Your task to perform on an android device: turn on translation in the chrome app Image 0: 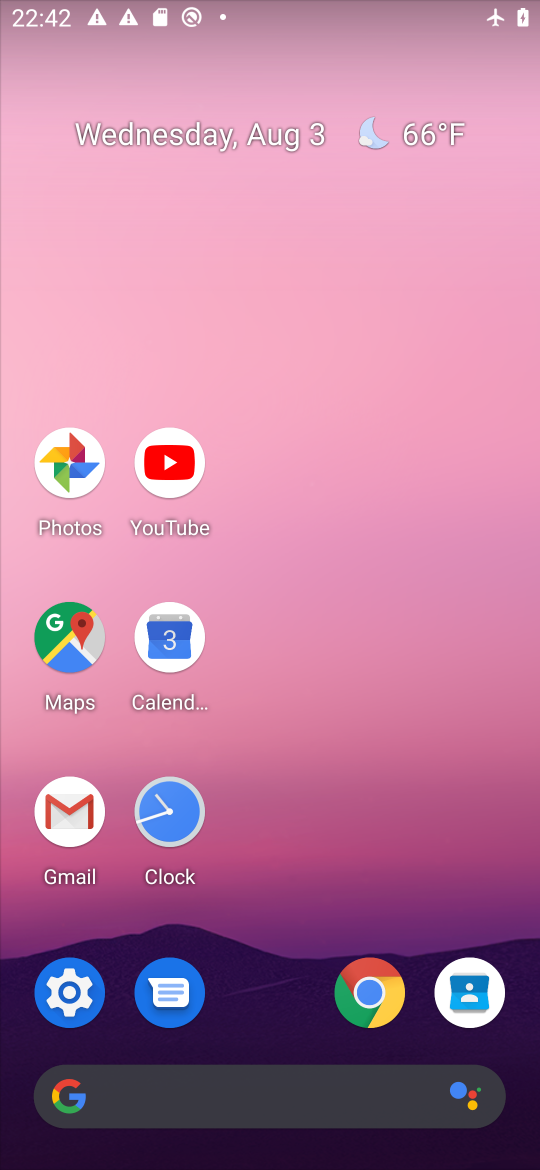
Step 0: click (372, 999)
Your task to perform on an android device: turn on translation in the chrome app Image 1: 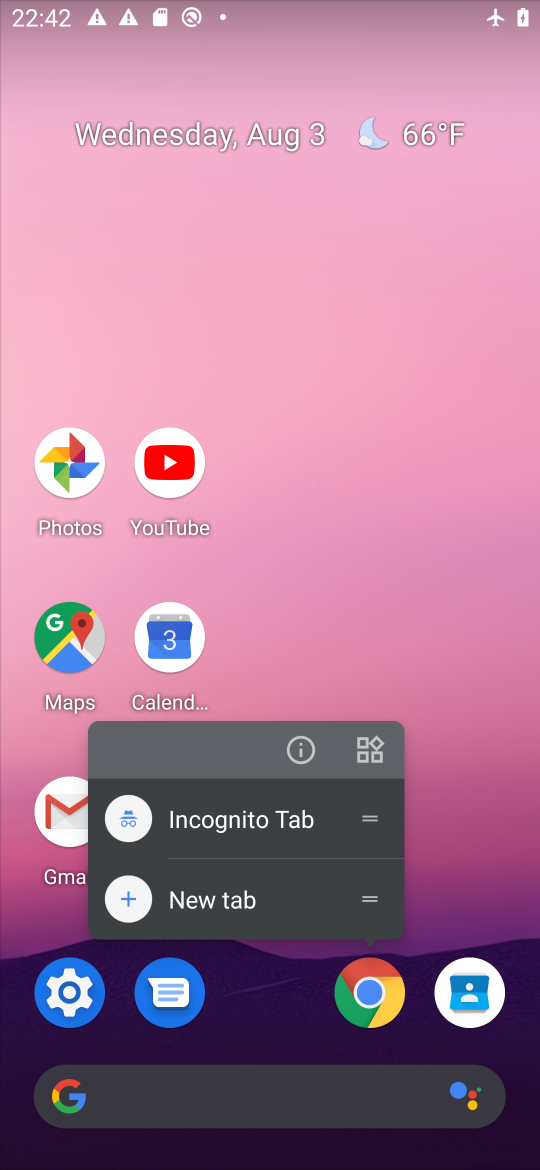
Step 1: click (372, 999)
Your task to perform on an android device: turn on translation in the chrome app Image 2: 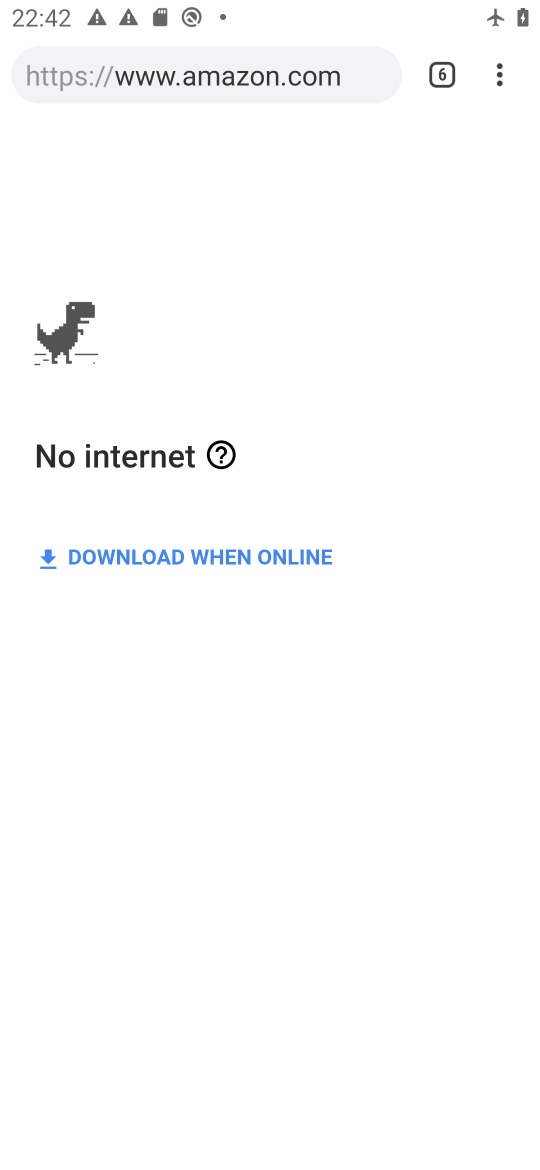
Step 2: click (494, 74)
Your task to perform on an android device: turn on translation in the chrome app Image 3: 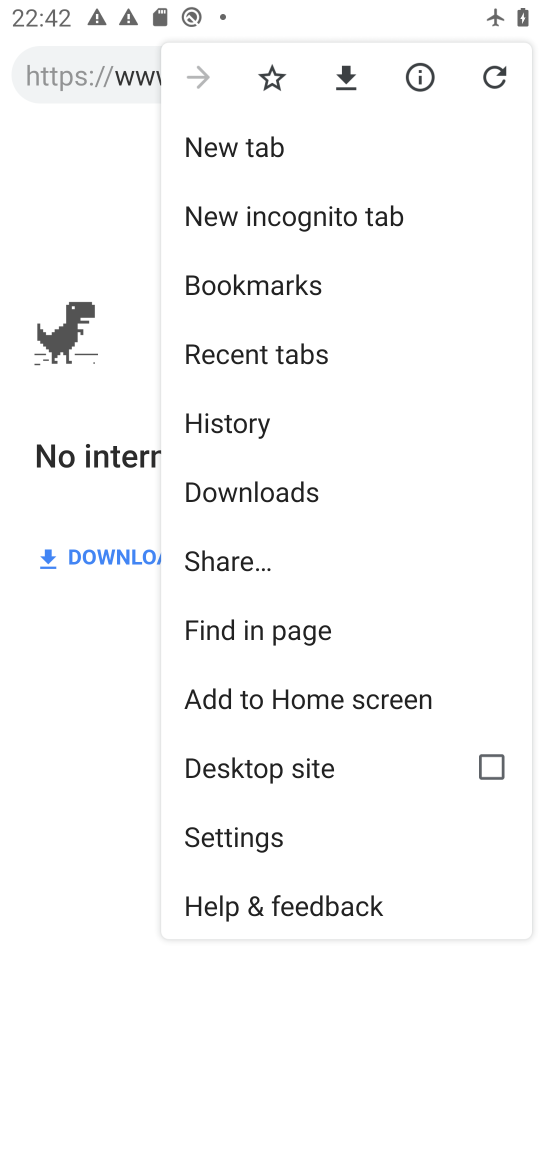
Step 3: click (239, 837)
Your task to perform on an android device: turn on translation in the chrome app Image 4: 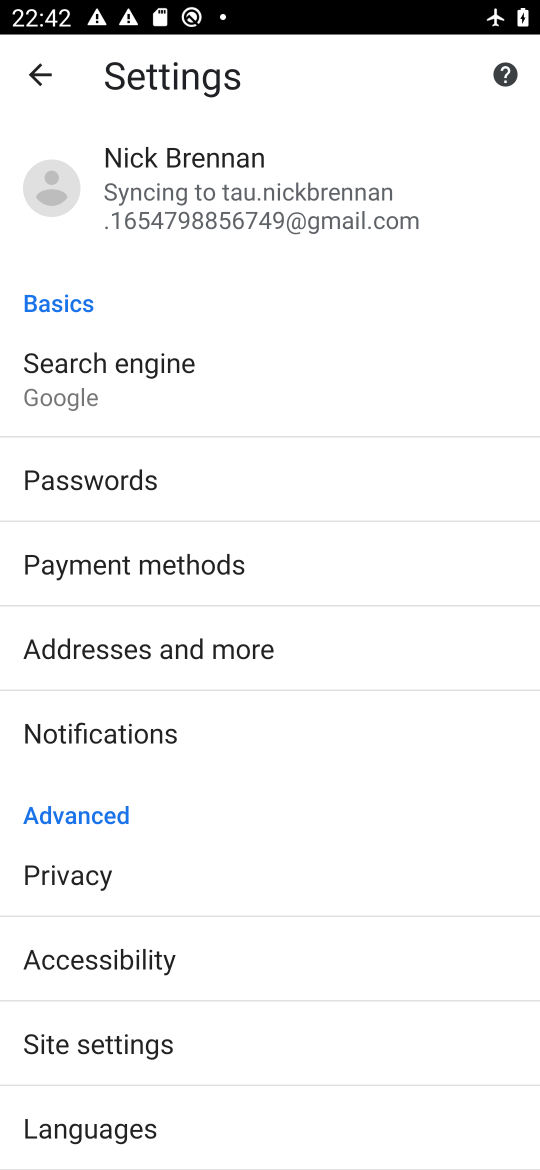
Step 4: click (127, 1123)
Your task to perform on an android device: turn on translation in the chrome app Image 5: 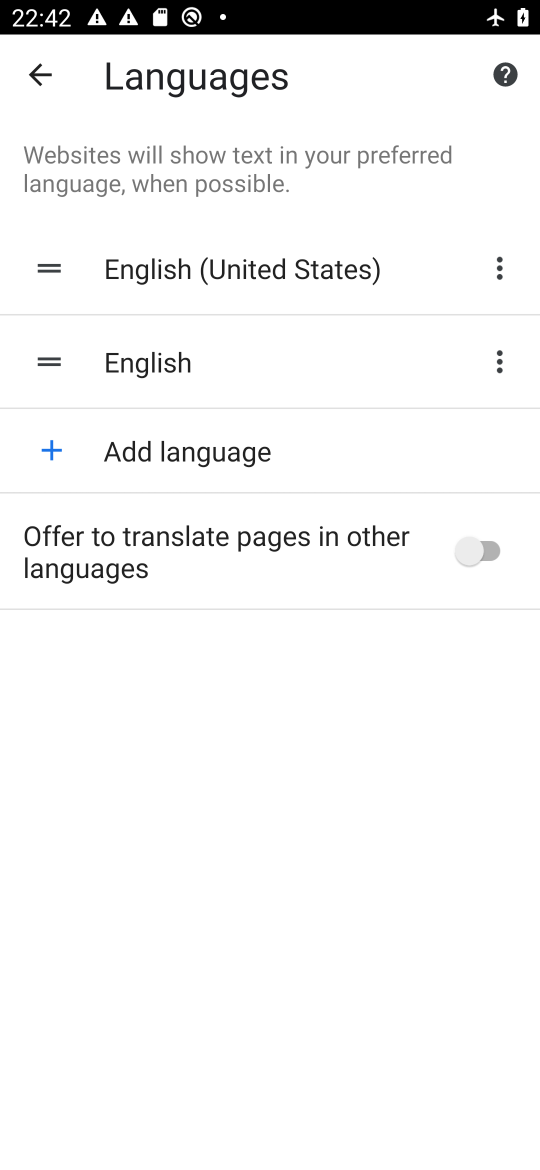
Step 5: click (488, 542)
Your task to perform on an android device: turn on translation in the chrome app Image 6: 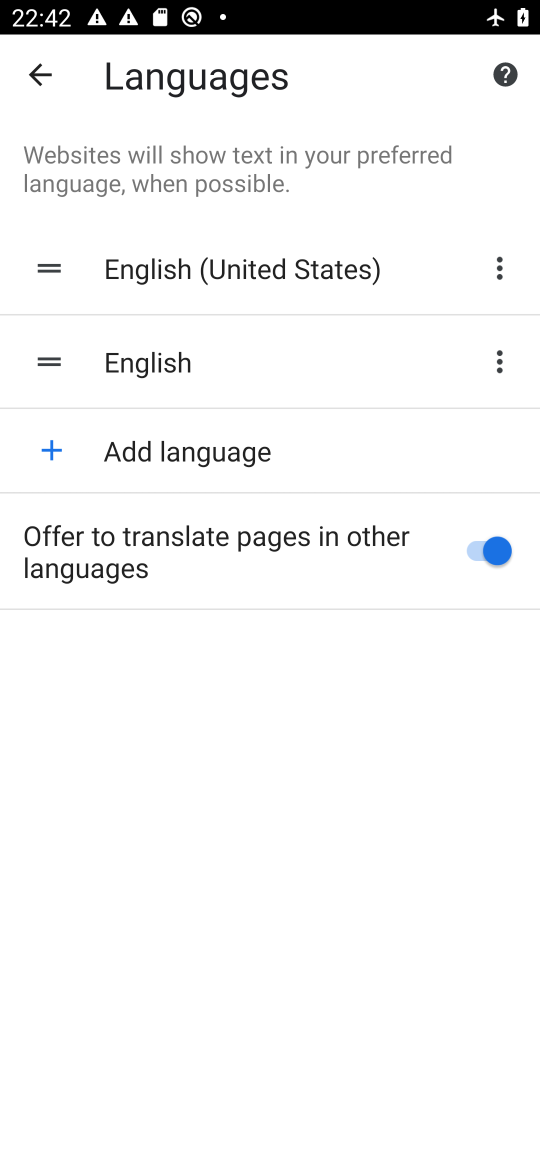
Step 6: task complete